Your task to perform on an android device: toggle improve location accuracy Image 0: 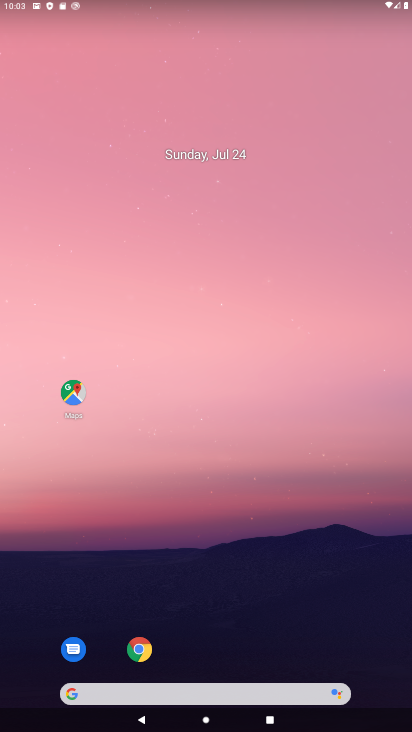
Step 0: drag from (263, 619) to (281, 100)
Your task to perform on an android device: toggle improve location accuracy Image 1: 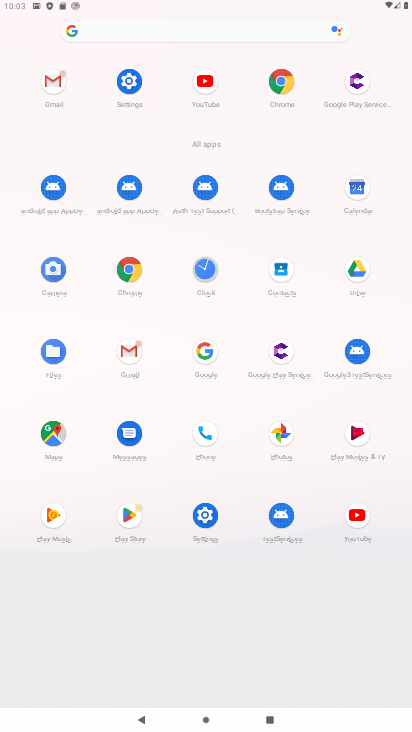
Step 1: click (211, 515)
Your task to perform on an android device: toggle improve location accuracy Image 2: 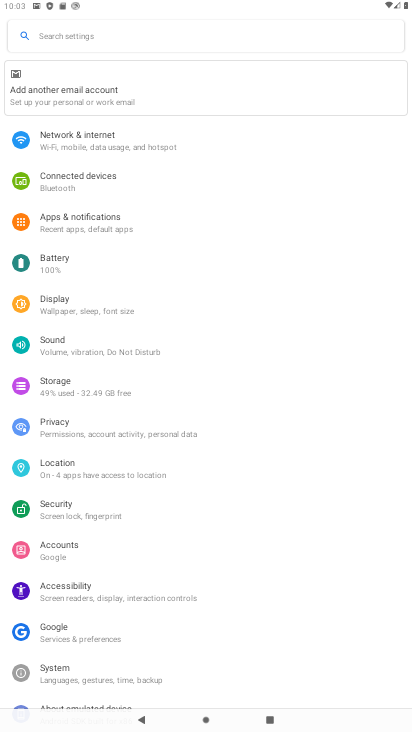
Step 2: click (57, 471)
Your task to perform on an android device: toggle improve location accuracy Image 3: 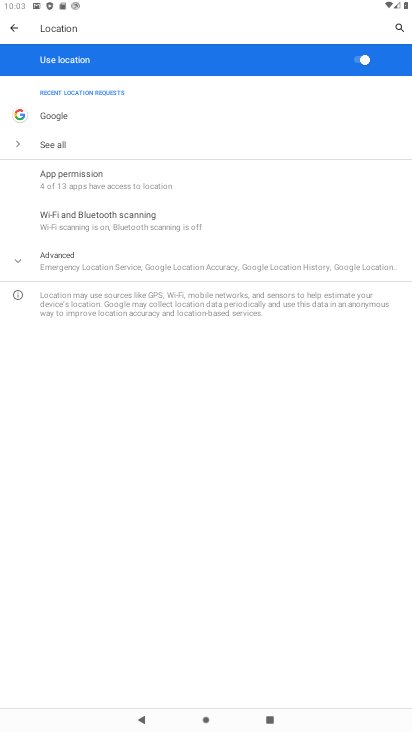
Step 3: click (74, 272)
Your task to perform on an android device: toggle improve location accuracy Image 4: 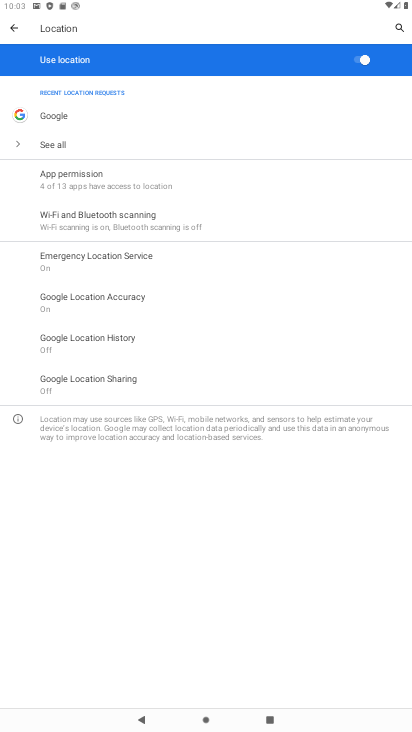
Step 4: click (83, 293)
Your task to perform on an android device: toggle improve location accuracy Image 5: 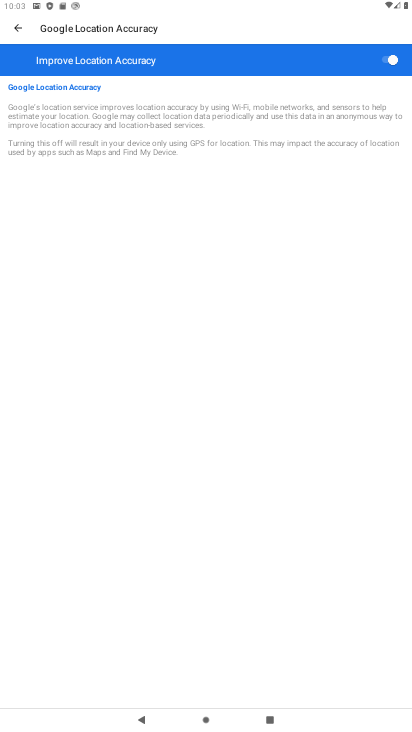
Step 5: click (389, 55)
Your task to perform on an android device: toggle improve location accuracy Image 6: 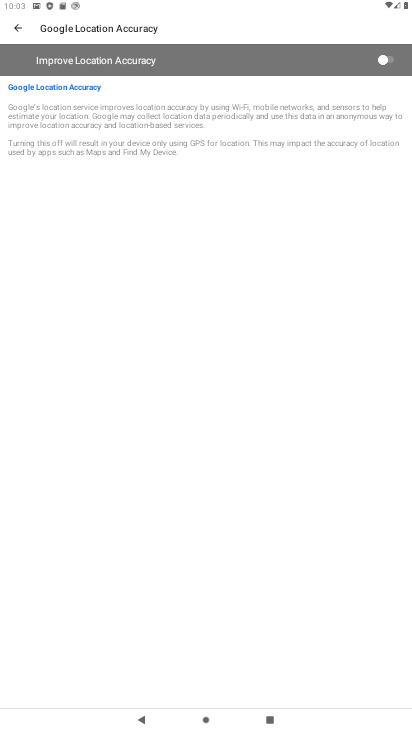
Step 6: task complete